Your task to perform on an android device: choose inbox layout in the gmail app Image 0: 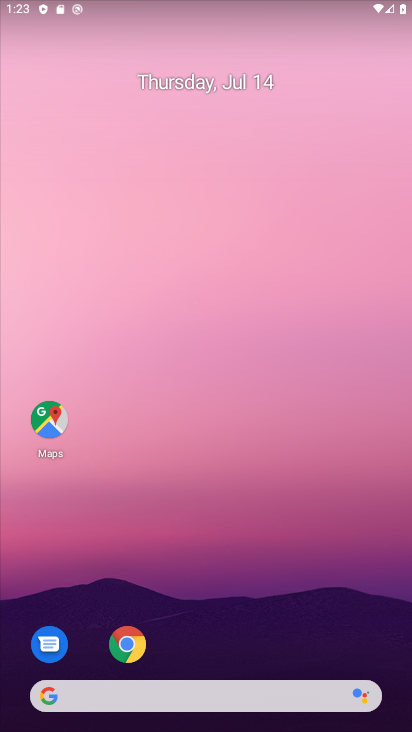
Step 0: drag from (176, 670) to (279, 196)
Your task to perform on an android device: choose inbox layout in the gmail app Image 1: 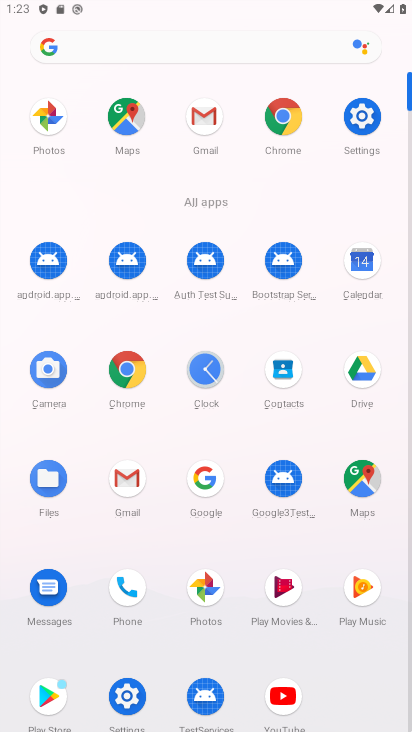
Step 1: click (136, 481)
Your task to perform on an android device: choose inbox layout in the gmail app Image 2: 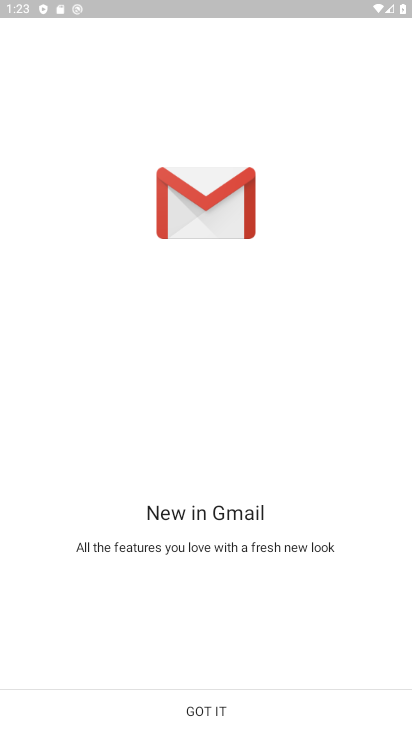
Step 2: click (225, 717)
Your task to perform on an android device: choose inbox layout in the gmail app Image 3: 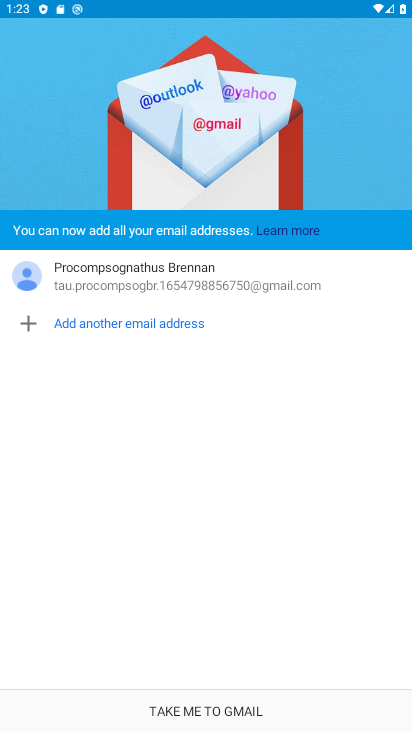
Step 3: click (225, 717)
Your task to perform on an android device: choose inbox layout in the gmail app Image 4: 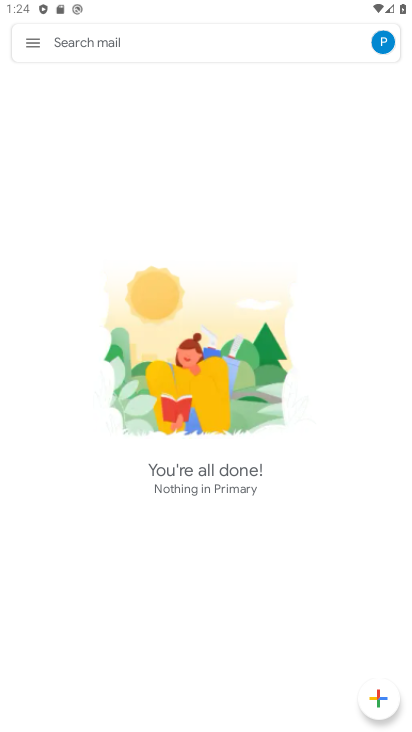
Step 4: click (46, 47)
Your task to perform on an android device: choose inbox layout in the gmail app Image 5: 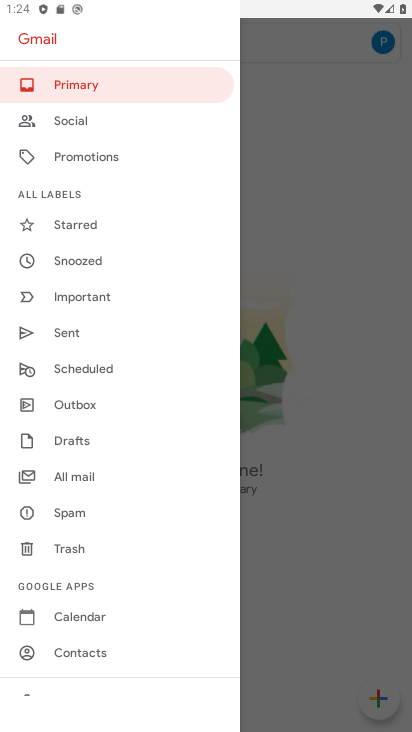
Step 5: drag from (111, 531) to (129, 393)
Your task to perform on an android device: choose inbox layout in the gmail app Image 6: 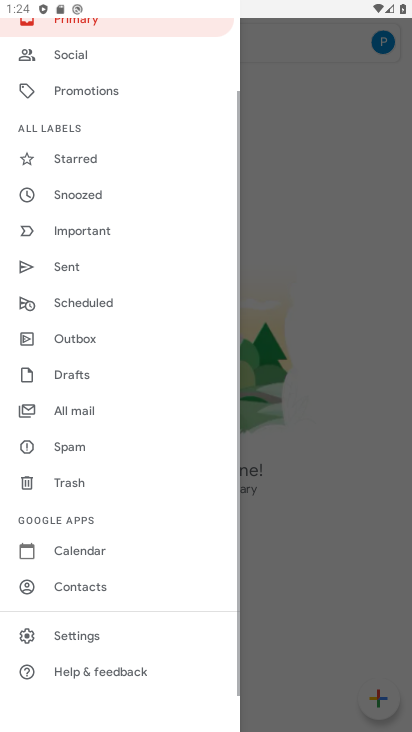
Step 6: click (115, 627)
Your task to perform on an android device: choose inbox layout in the gmail app Image 7: 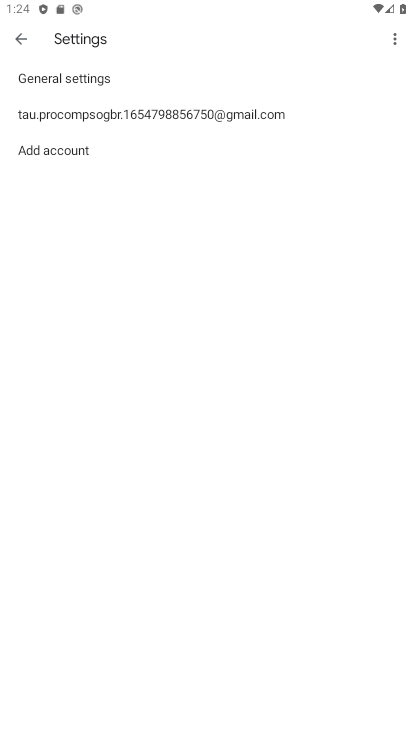
Step 7: click (182, 117)
Your task to perform on an android device: choose inbox layout in the gmail app Image 8: 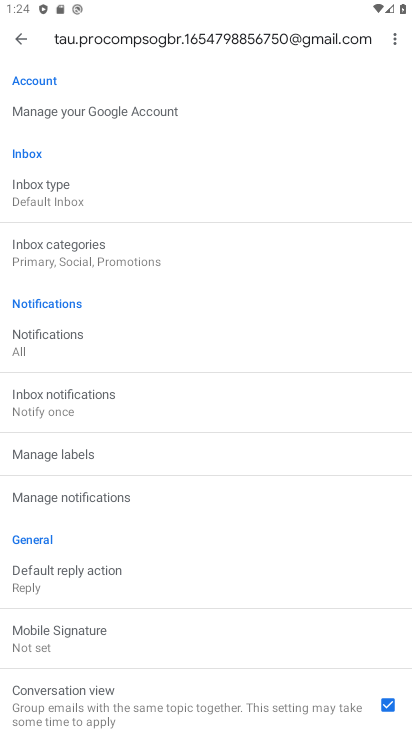
Step 8: click (136, 199)
Your task to perform on an android device: choose inbox layout in the gmail app Image 9: 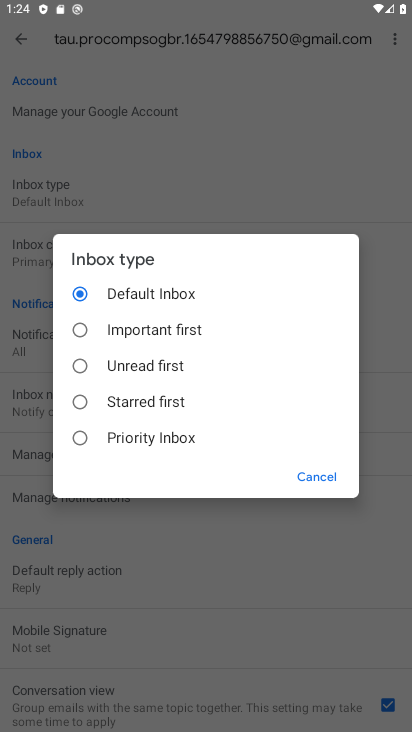
Step 9: click (153, 443)
Your task to perform on an android device: choose inbox layout in the gmail app Image 10: 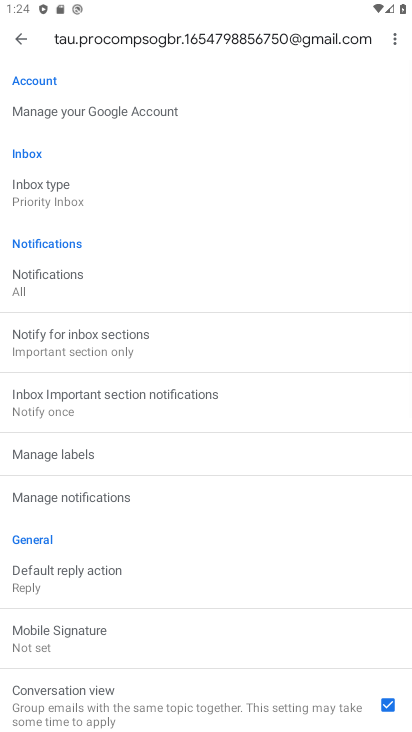
Step 10: task complete